Your task to perform on an android device: toggle airplane mode Image 0: 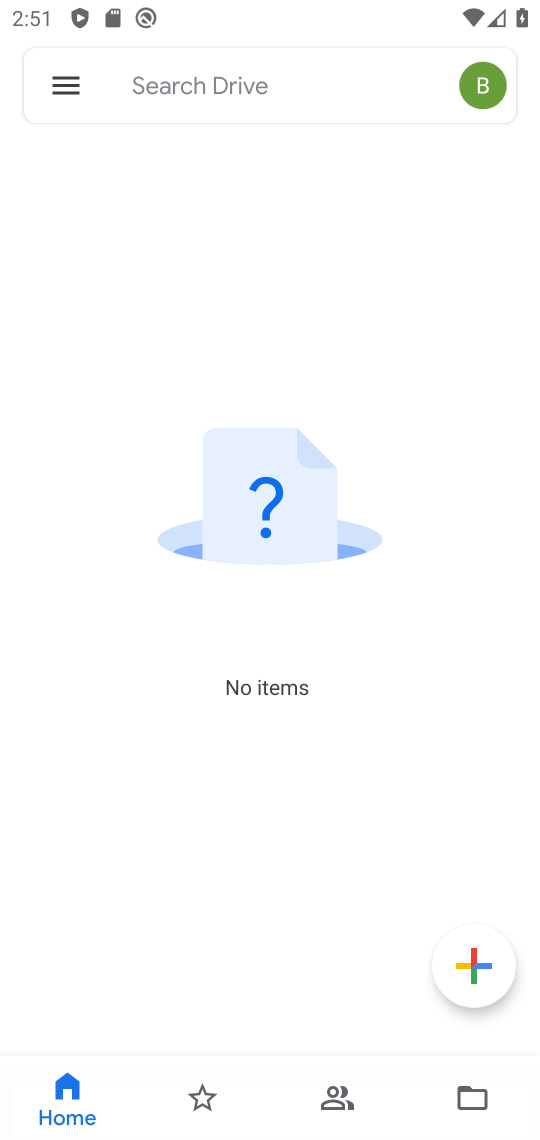
Step 0: press home button
Your task to perform on an android device: toggle airplane mode Image 1: 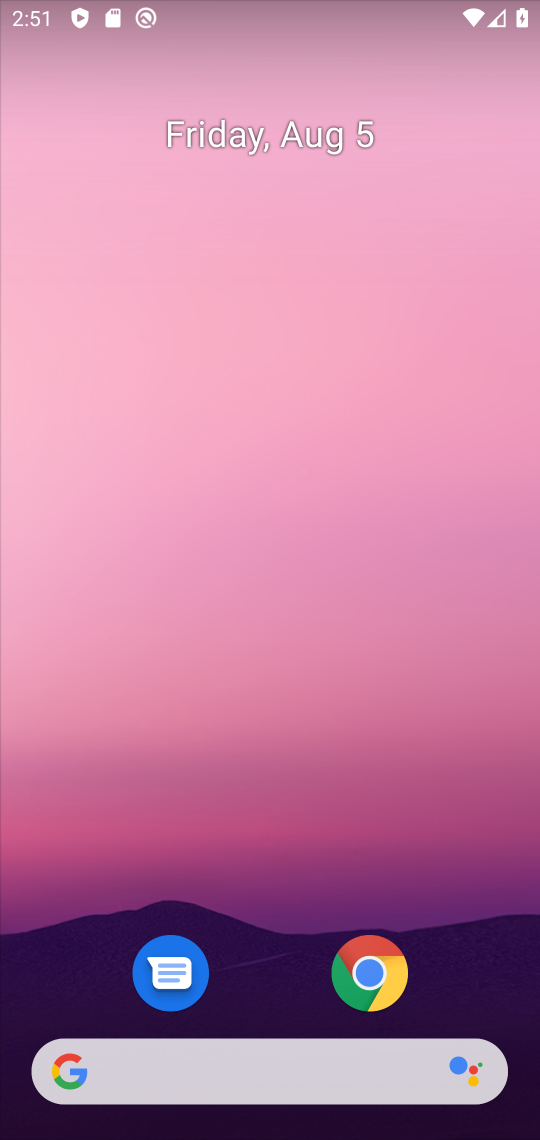
Step 1: drag from (314, 1001) to (278, 97)
Your task to perform on an android device: toggle airplane mode Image 2: 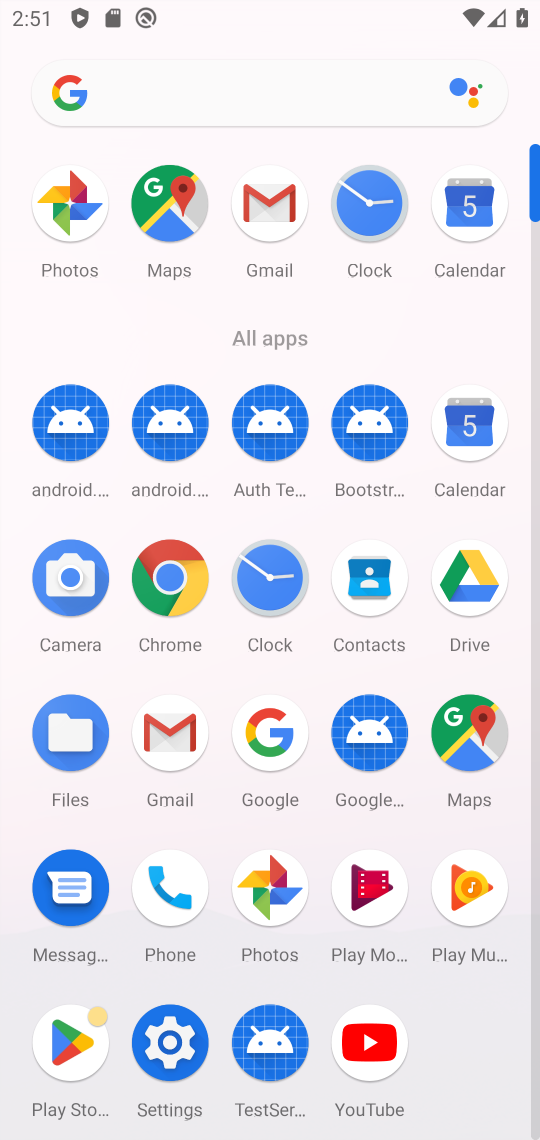
Step 2: click (155, 1053)
Your task to perform on an android device: toggle airplane mode Image 3: 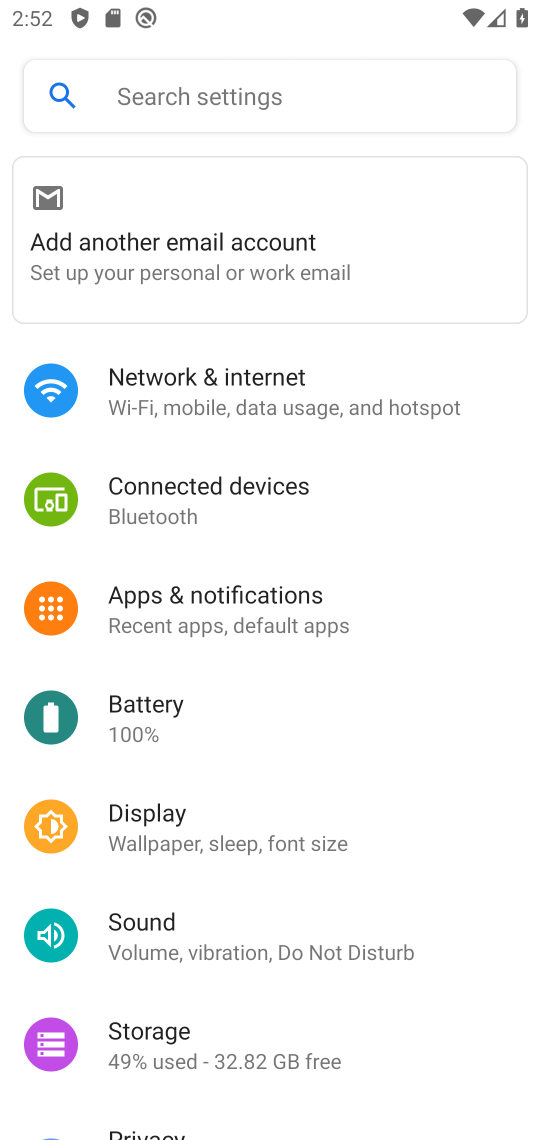
Step 3: click (216, 371)
Your task to perform on an android device: toggle airplane mode Image 4: 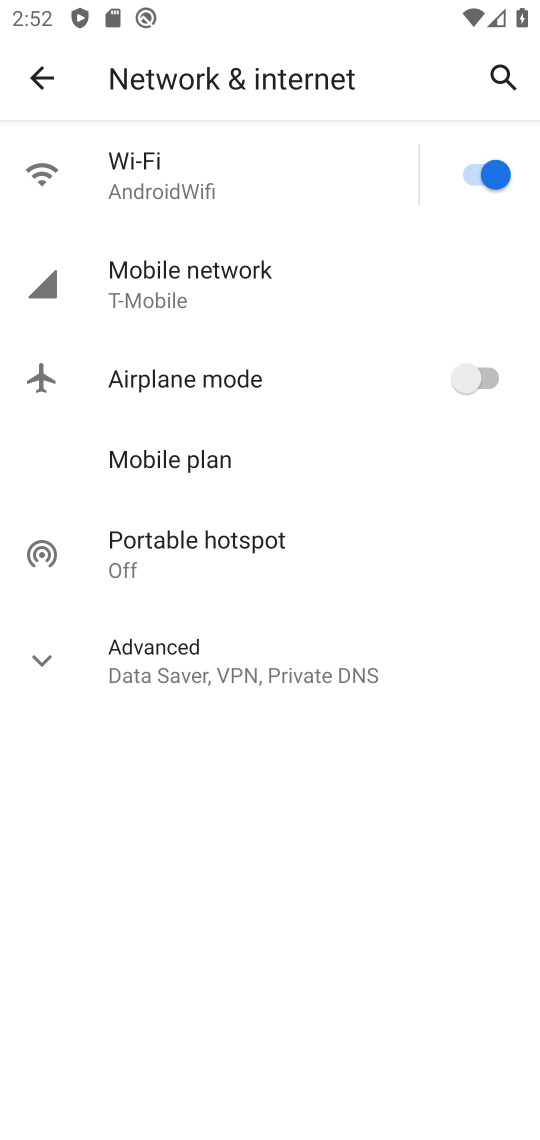
Step 4: click (447, 375)
Your task to perform on an android device: toggle airplane mode Image 5: 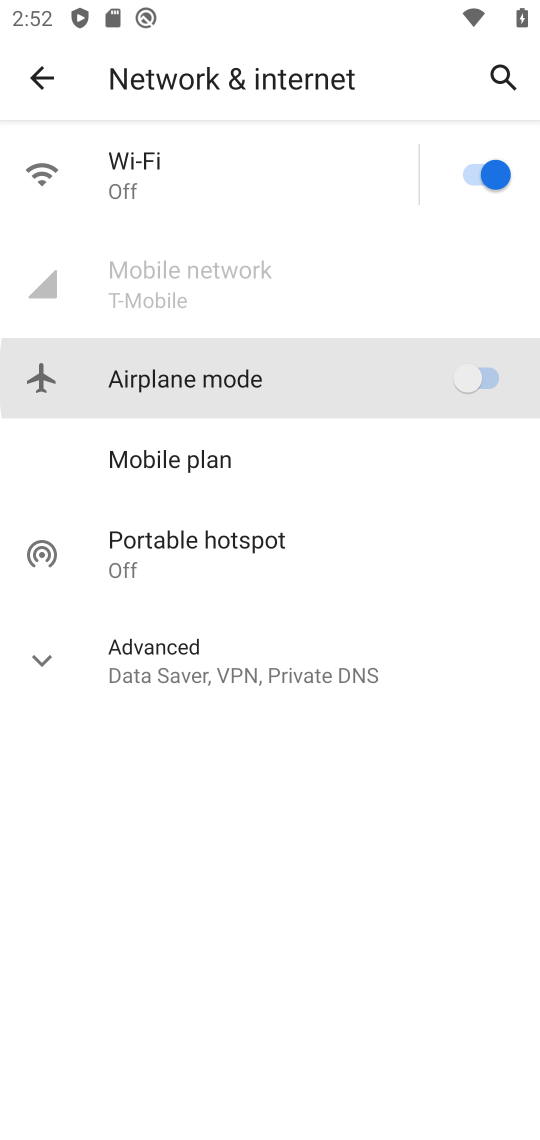
Step 5: task complete